Your task to perform on an android device: set default search engine in the chrome app Image 0: 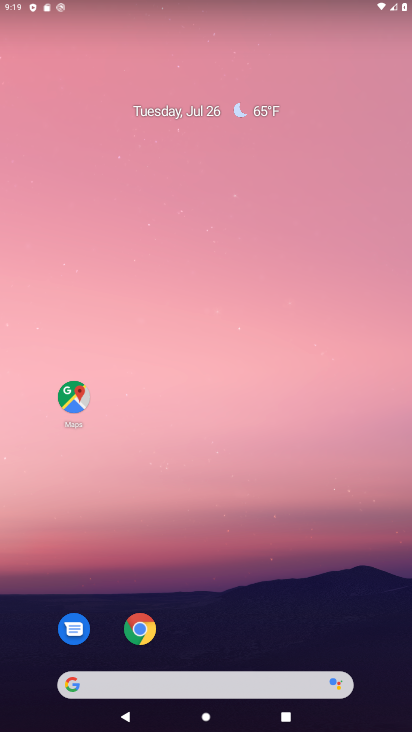
Step 0: click (289, 122)
Your task to perform on an android device: set default search engine in the chrome app Image 1: 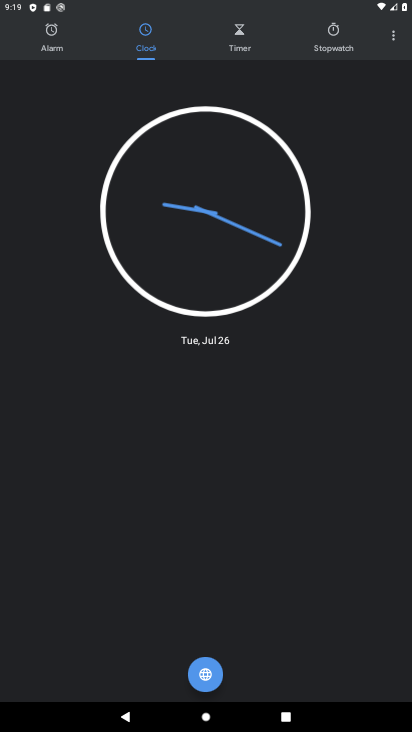
Step 1: press home button
Your task to perform on an android device: set default search engine in the chrome app Image 2: 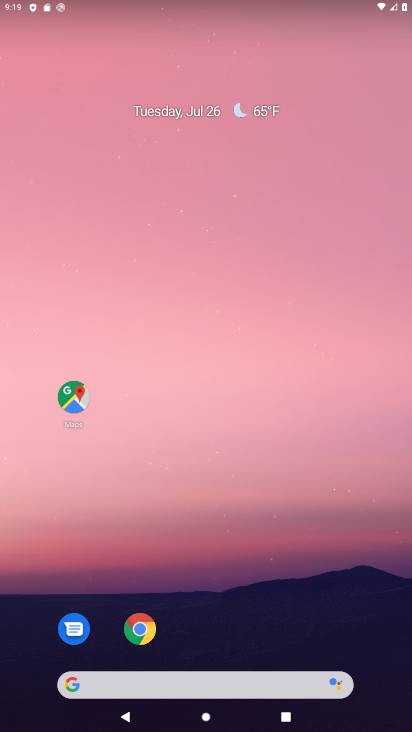
Step 2: drag from (356, 589) to (292, 196)
Your task to perform on an android device: set default search engine in the chrome app Image 3: 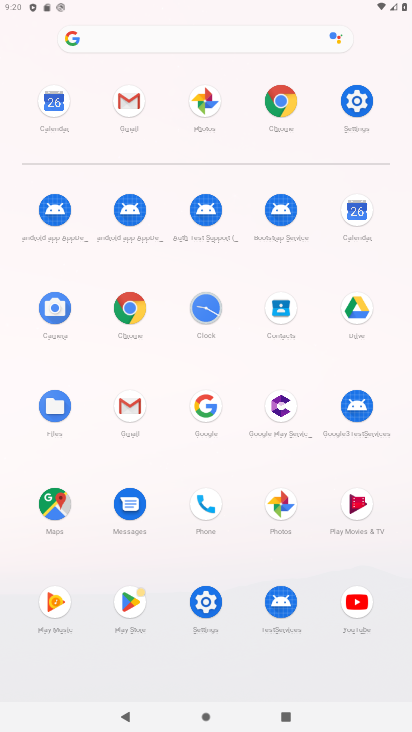
Step 3: click (284, 101)
Your task to perform on an android device: set default search engine in the chrome app Image 4: 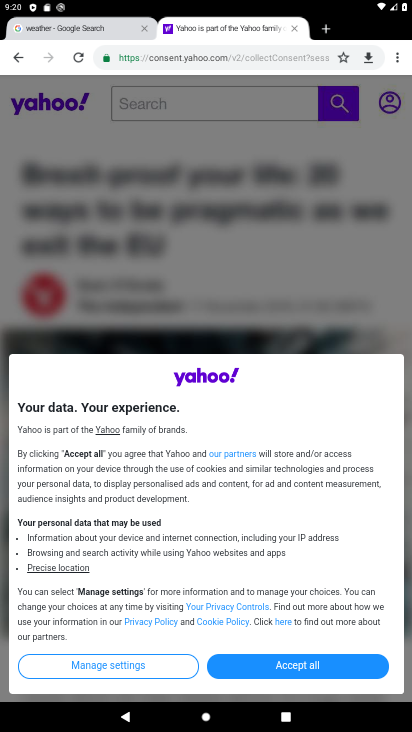
Step 4: drag from (395, 51) to (320, 382)
Your task to perform on an android device: set default search engine in the chrome app Image 5: 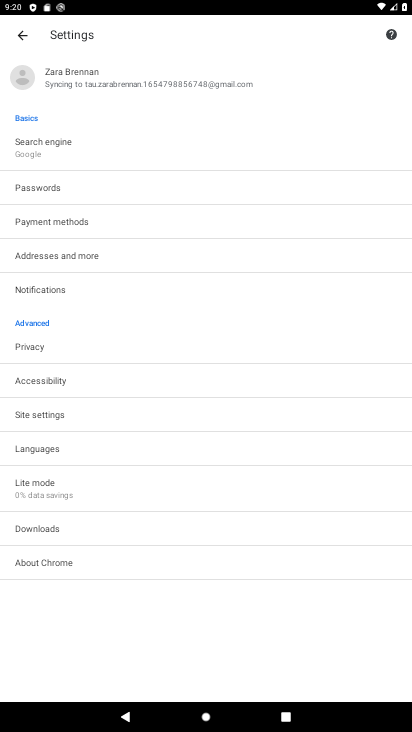
Step 5: click (81, 140)
Your task to perform on an android device: set default search engine in the chrome app Image 6: 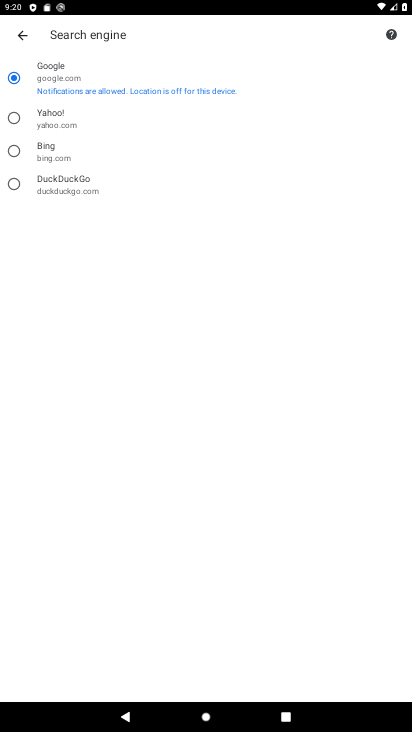
Step 6: task complete